Your task to perform on an android device: Go to Google maps Image 0: 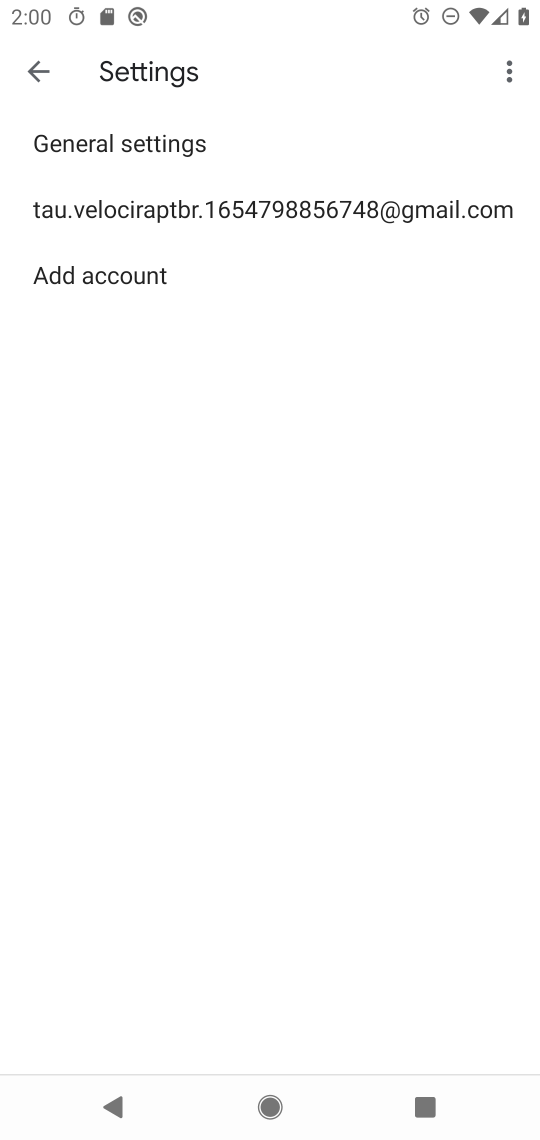
Step 0: press home button
Your task to perform on an android device: Go to Google maps Image 1: 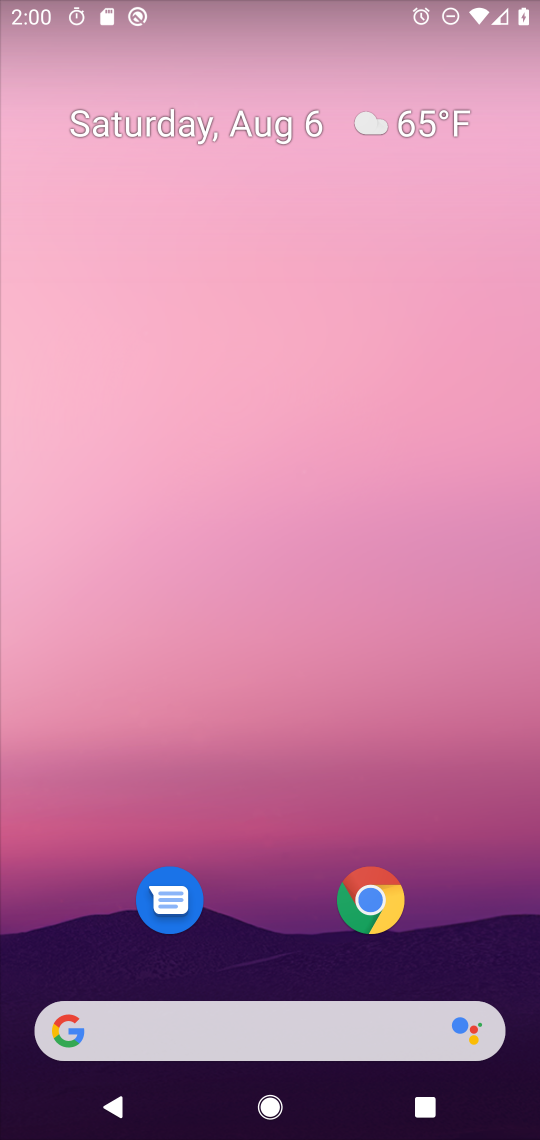
Step 1: drag from (277, 793) to (273, 106)
Your task to perform on an android device: Go to Google maps Image 2: 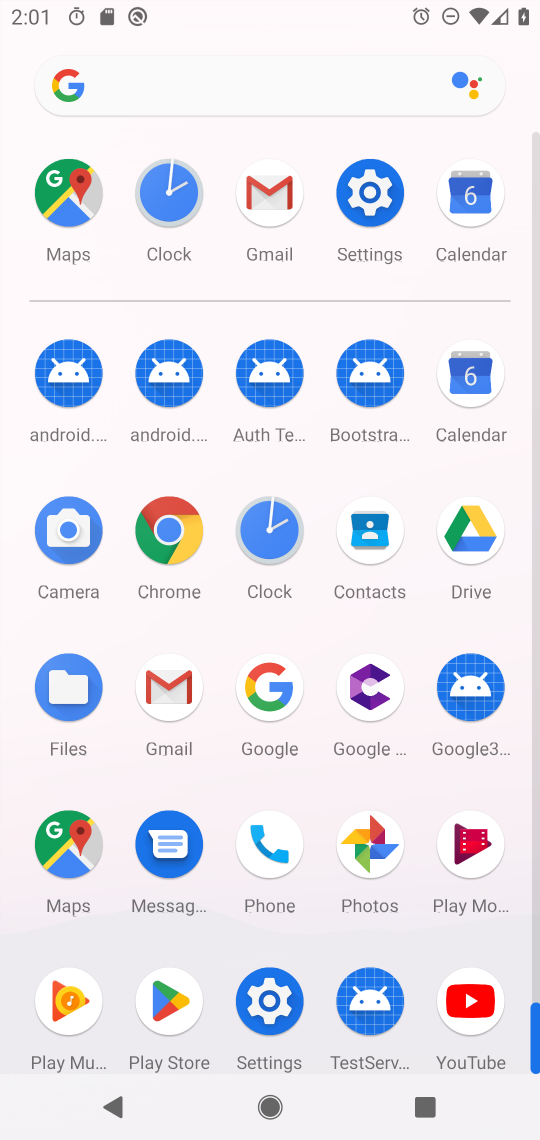
Step 2: click (59, 851)
Your task to perform on an android device: Go to Google maps Image 3: 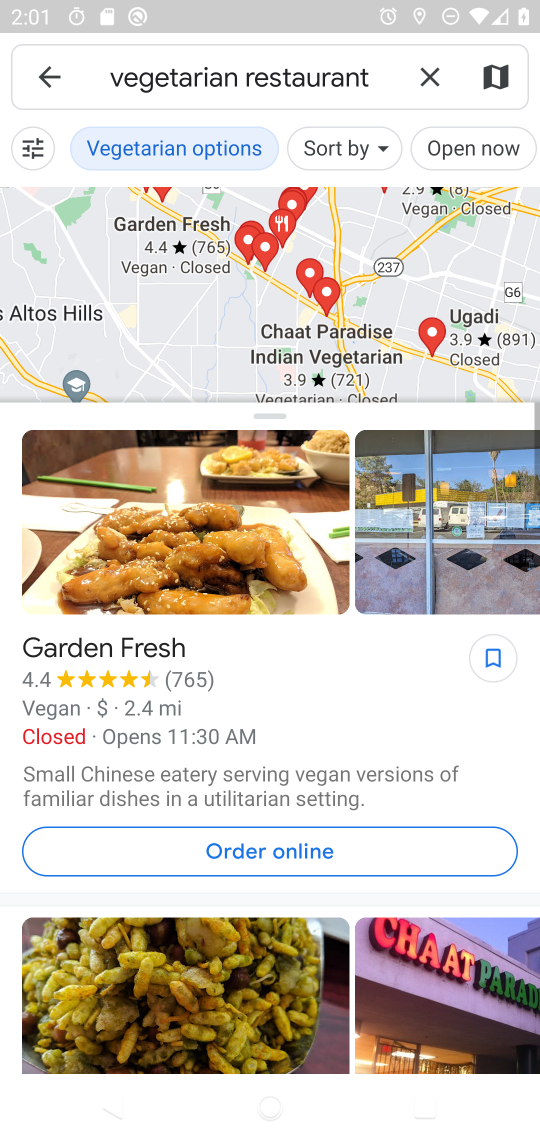
Step 3: task complete